Your task to perform on an android device: Is it going to rain this weekend? Image 0: 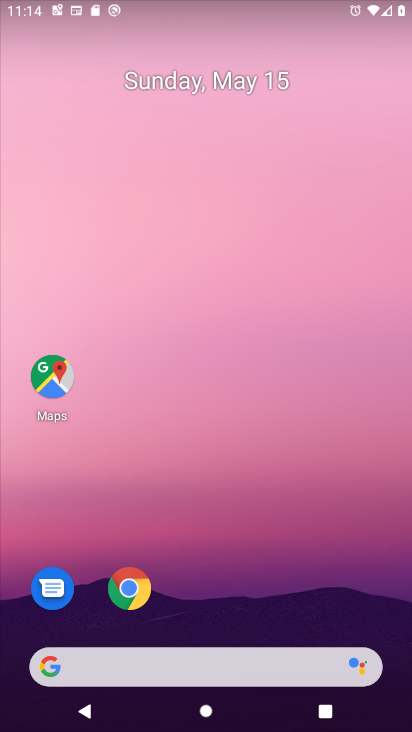
Step 0: drag from (225, 567) to (197, 362)
Your task to perform on an android device: Is it going to rain this weekend? Image 1: 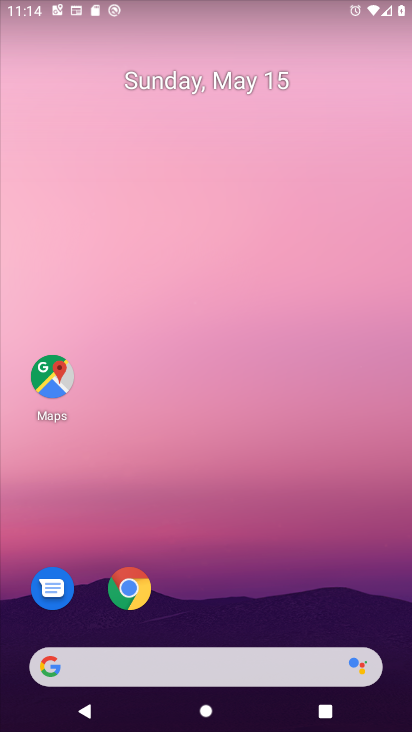
Step 1: drag from (243, 567) to (278, 148)
Your task to perform on an android device: Is it going to rain this weekend? Image 2: 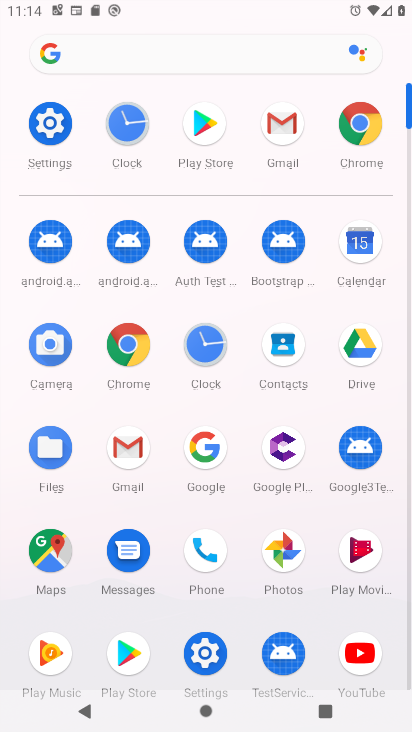
Step 2: click (198, 443)
Your task to perform on an android device: Is it going to rain this weekend? Image 3: 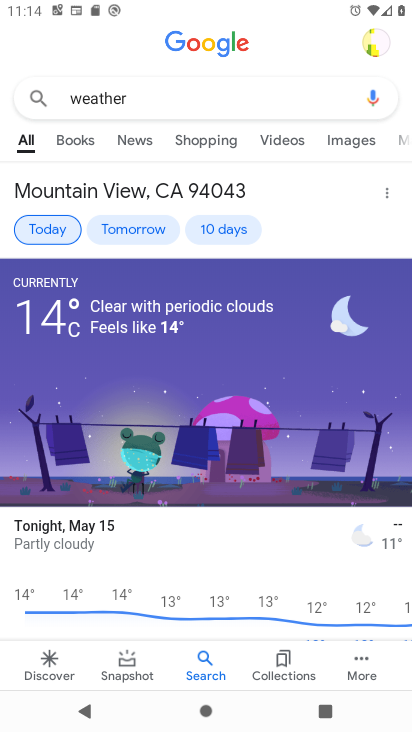
Step 3: click (219, 222)
Your task to perform on an android device: Is it going to rain this weekend? Image 4: 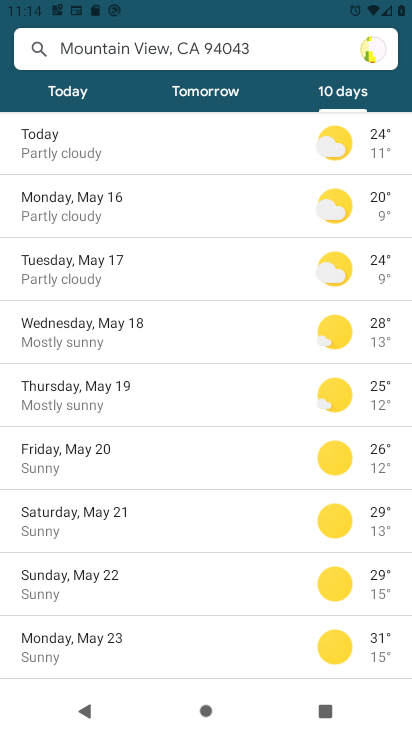
Step 4: task complete